Your task to perform on an android device: Open settings Image 0: 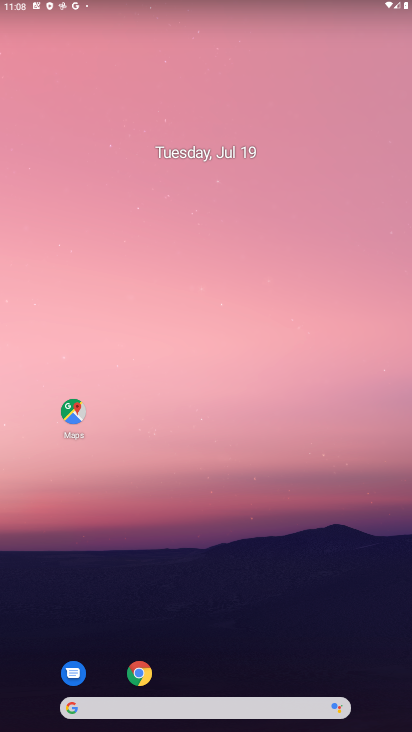
Step 0: drag from (229, 642) to (230, 298)
Your task to perform on an android device: Open settings Image 1: 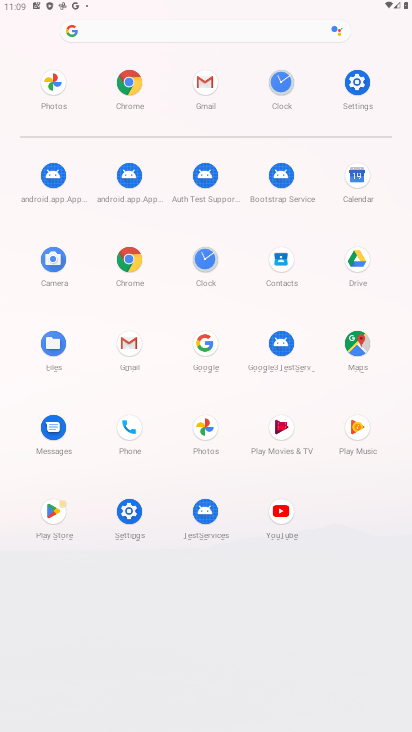
Step 1: click (372, 103)
Your task to perform on an android device: Open settings Image 2: 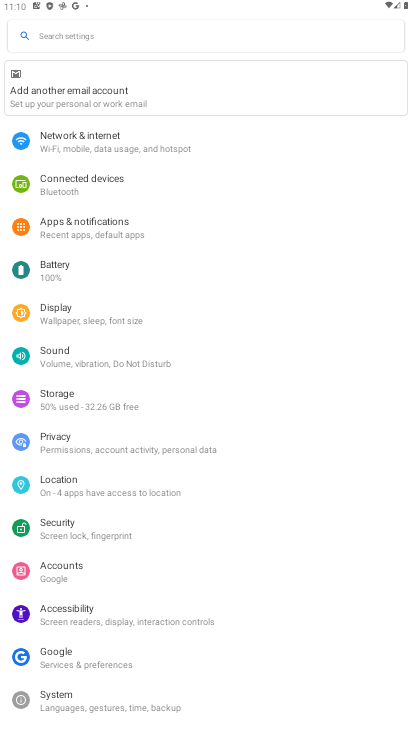
Step 2: task complete